Your task to perform on an android device: create a new album in the google photos Image 0: 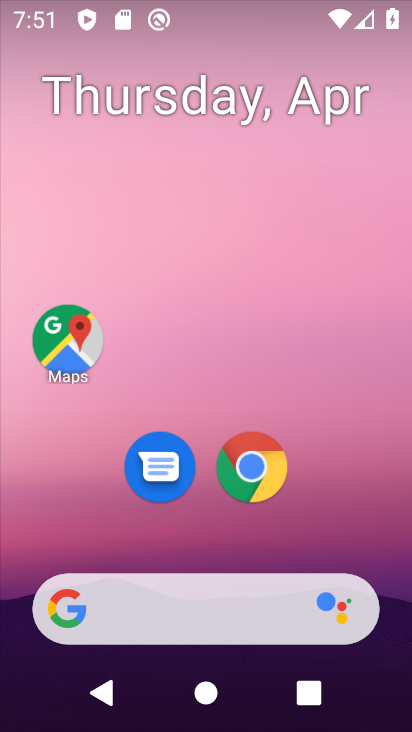
Step 0: drag from (337, 241) to (321, 41)
Your task to perform on an android device: create a new album in the google photos Image 1: 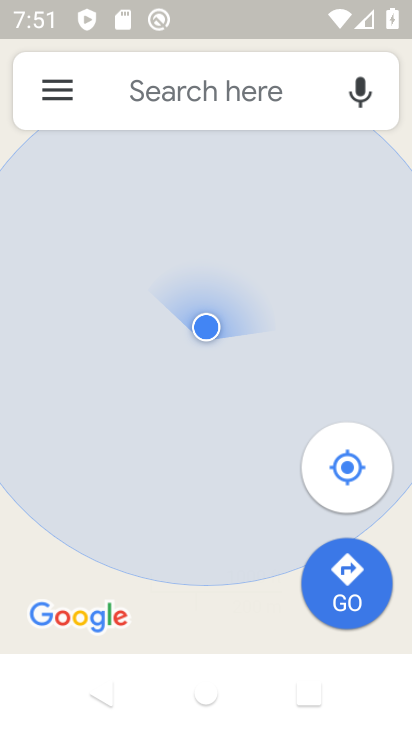
Step 1: press home button
Your task to perform on an android device: create a new album in the google photos Image 2: 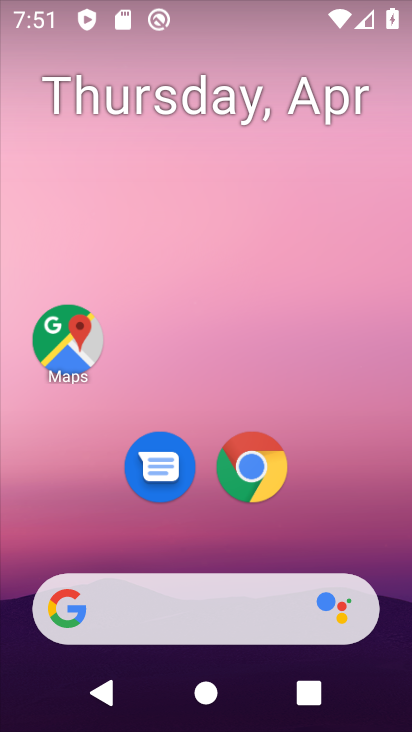
Step 2: drag from (215, 560) to (221, 86)
Your task to perform on an android device: create a new album in the google photos Image 3: 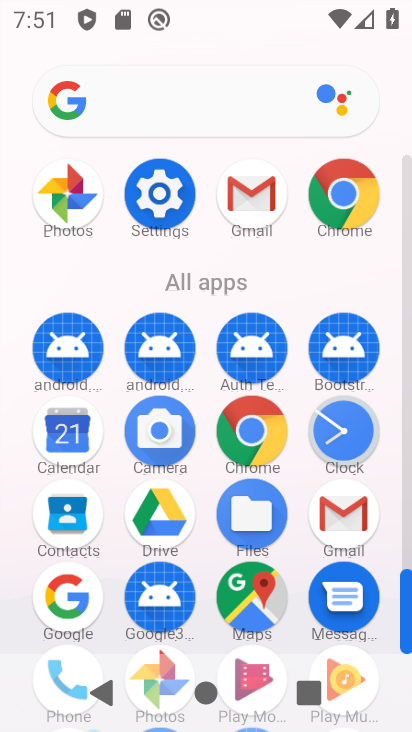
Step 3: drag from (202, 585) to (217, 179)
Your task to perform on an android device: create a new album in the google photos Image 4: 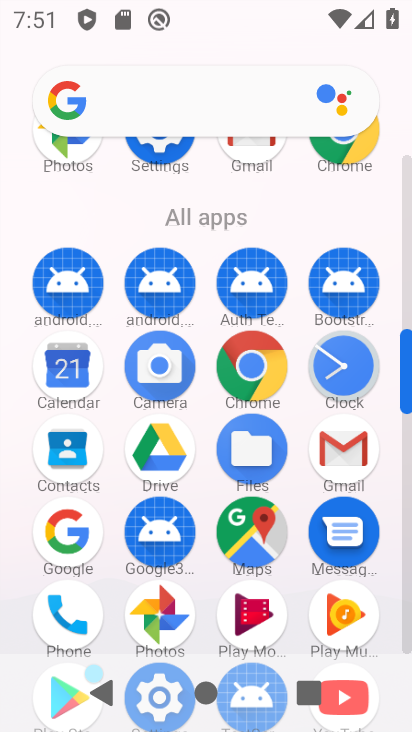
Step 4: click (156, 629)
Your task to perform on an android device: create a new album in the google photos Image 5: 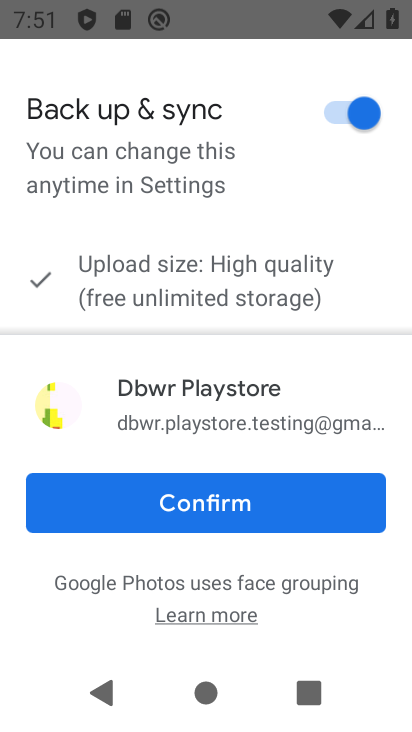
Step 5: click (271, 522)
Your task to perform on an android device: create a new album in the google photos Image 6: 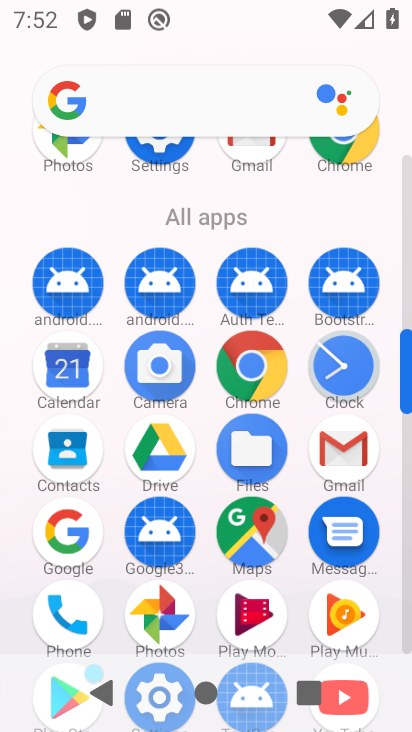
Step 6: click (170, 603)
Your task to perform on an android device: create a new album in the google photos Image 7: 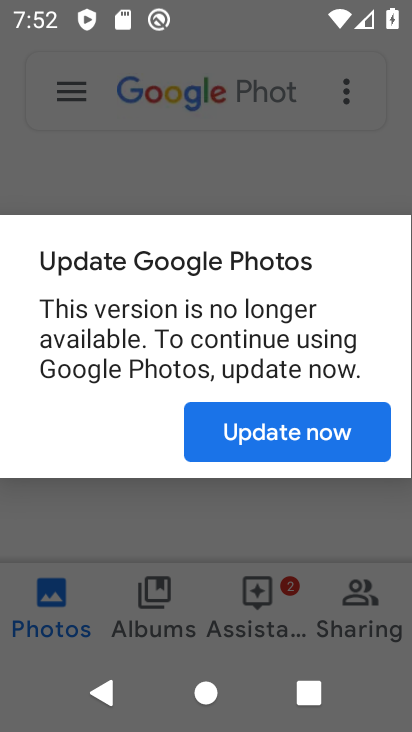
Step 7: click (244, 452)
Your task to perform on an android device: create a new album in the google photos Image 8: 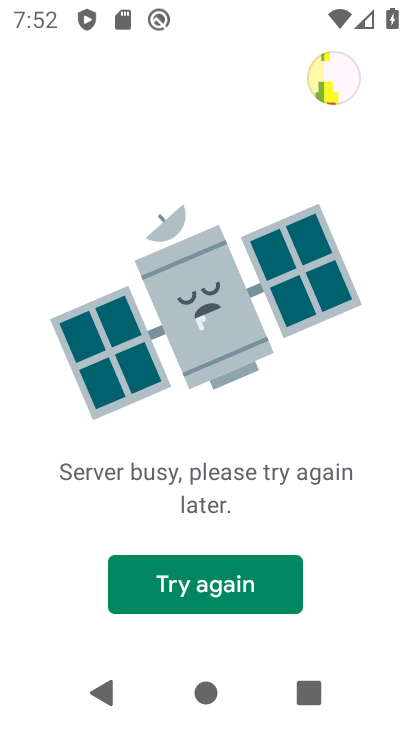
Step 8: task complete